Your task to perform on an android device: set an alarm Image 0: 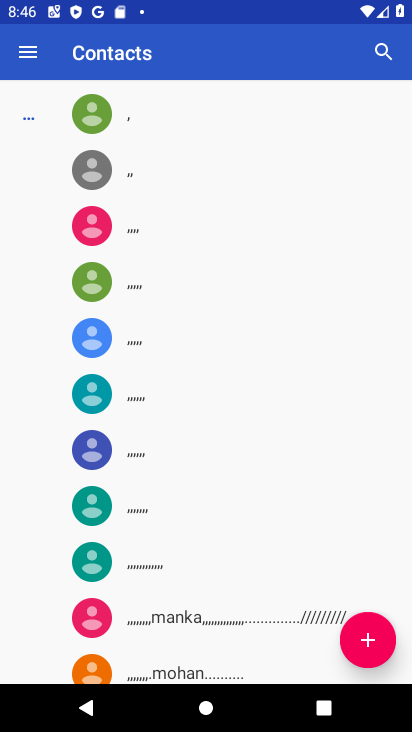
Step 0: press back button
Your task to perform on an android device: set an alarm Image 1: 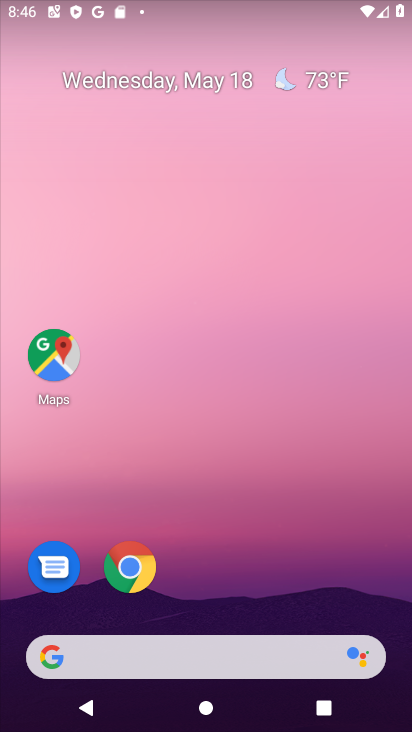
Step 1: drag from (210, 518) to (205, 19)
Your task to perform on an android device: set an alarm Image 2: 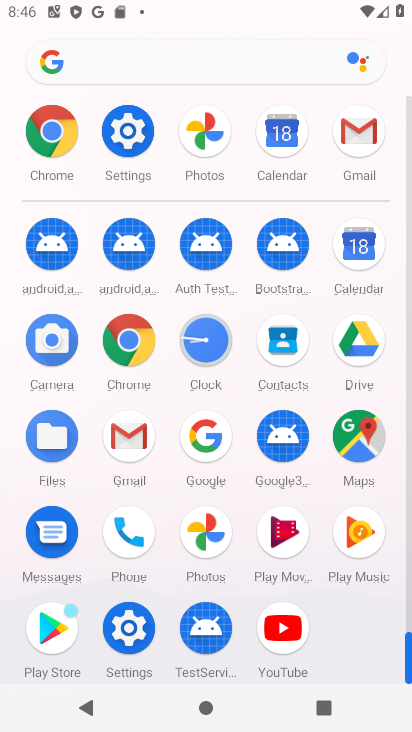
Step 2: click (202, 333)
Your task to perform on an android device: set an alarm Image 3: 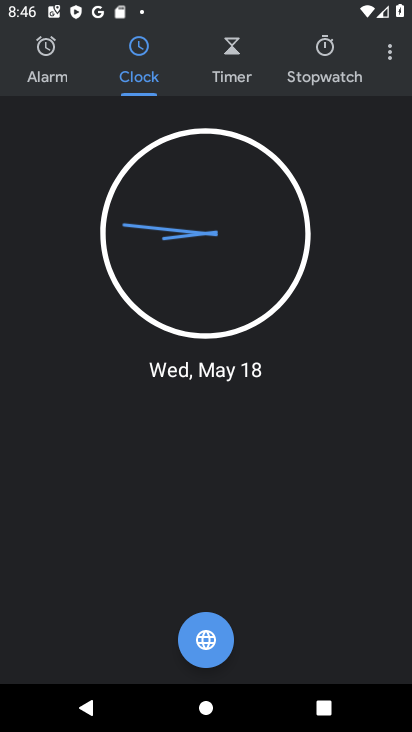
Step 3: click (44, 61)
Your task to perform on an android device: set an alarm Image 4: 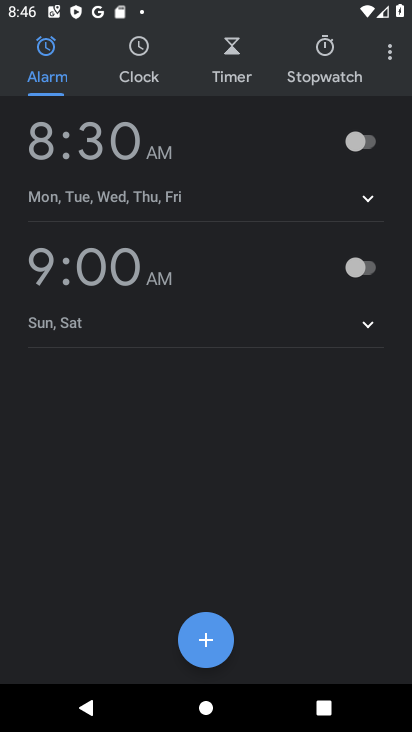
Step 4: click (212, 611)
Your task to perform on an android device: set an alarm Image 5: 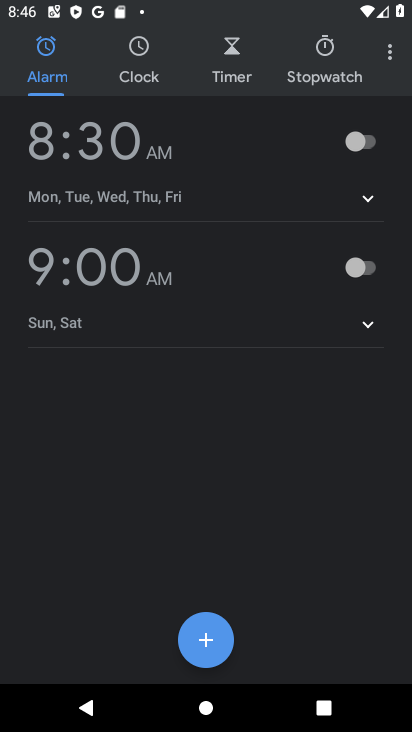
Step 5: click (205, 631)
Your task to perform on an android device: set an alarm Image 6: 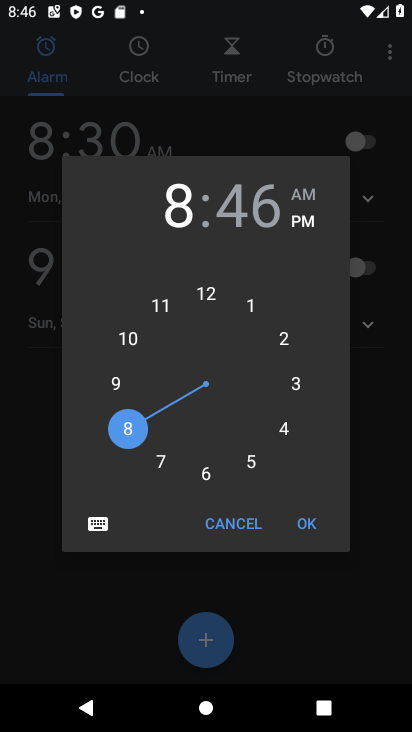
Step 6: click (298, 531)
Your task to perform on an android device: set an alarm Image 7: 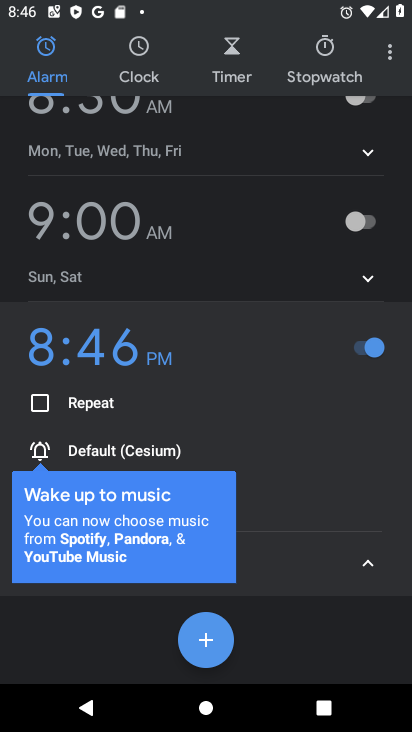
Step 7: task complete